Your task to perform on an android device: Search for the new Nintendo switch on Walmart. Image 0: 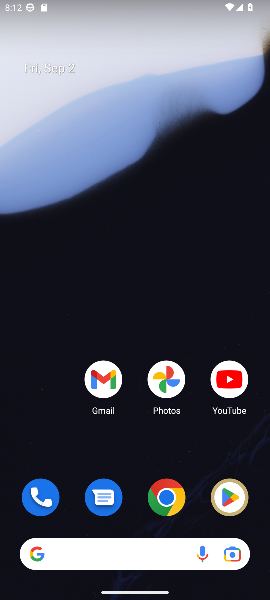
Step 0: drag from (131, 523) to (128, 154)
Your task to perform on an android device: Search for the new Nintendo switch on Walmart. Image 1: 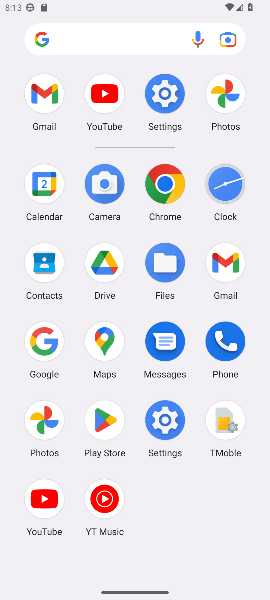
Step 1: click (44, 339)
Your task to perform on an android device: Search for the new Nintendo switch on Walmart. Image 2: 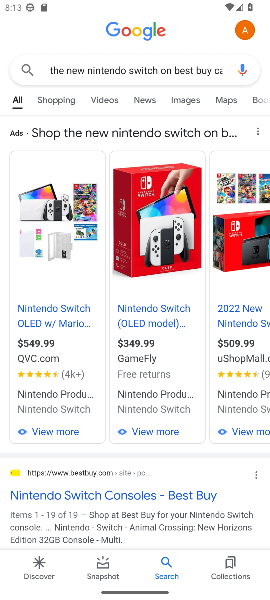
Step 2: click (44, 339)
Your task to perform on an android device: Search for the new Nintendo switch on Walmart. Image 3: 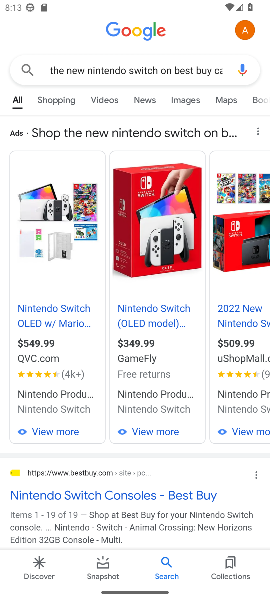
Step 3: task complete